Your task to perform on an android device: Search for usb-a to usb-b on costco, select the first entry, and add it to the cart. Image 0: 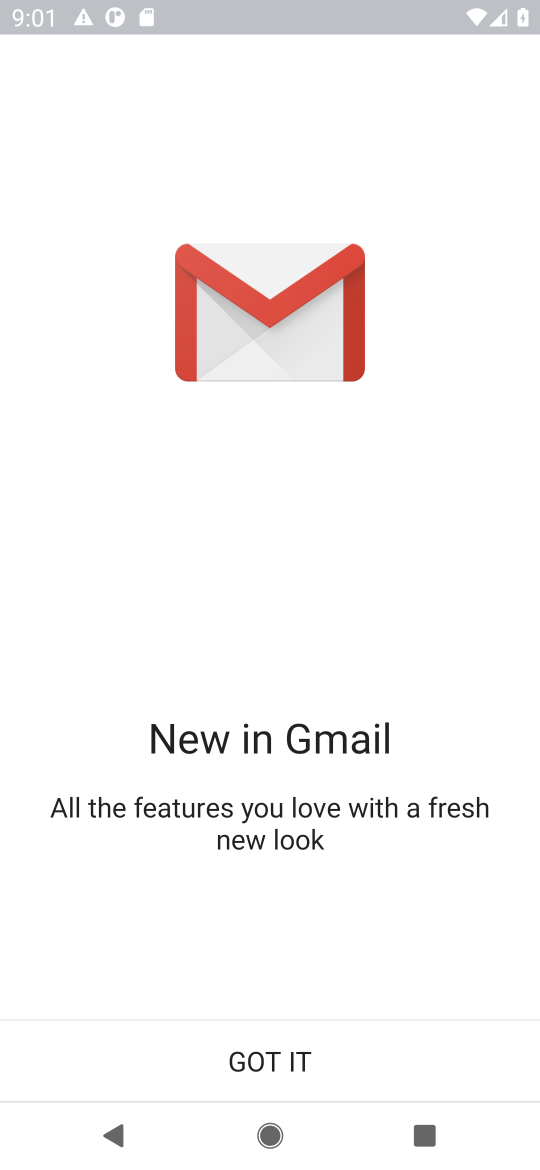
Step 0: press home button
Your task to perform on an android device: Search for usb-a to usb-b on costco, select the first entry, and add it to the cart. Image 1: 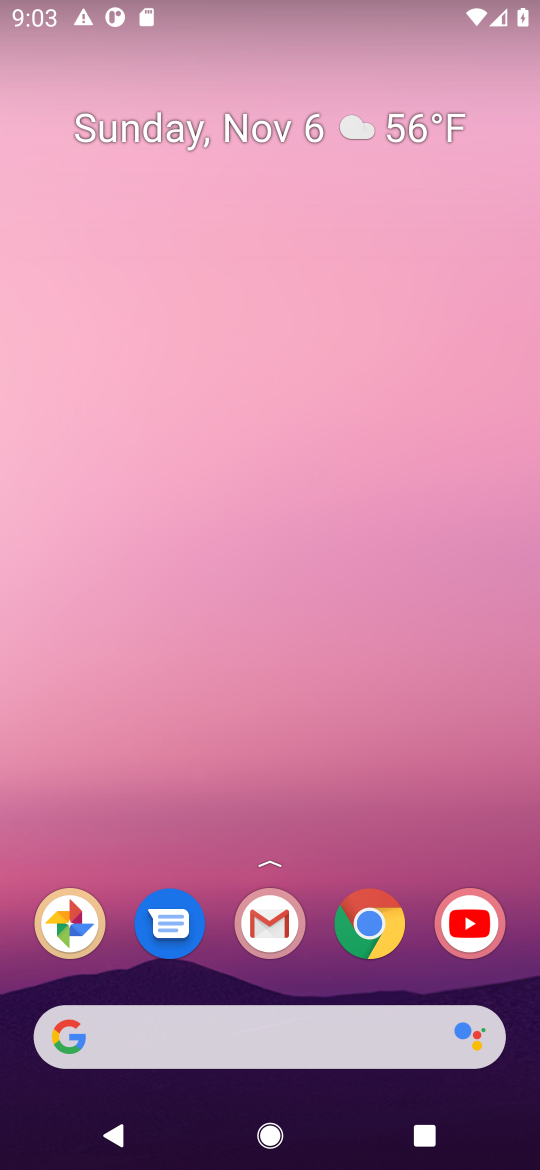
Step 1: click (368, 928)
Your task to perform on an android device: Search for usb-a to usb-b on costco, select the first entry, and add it to the cart. Image 2: 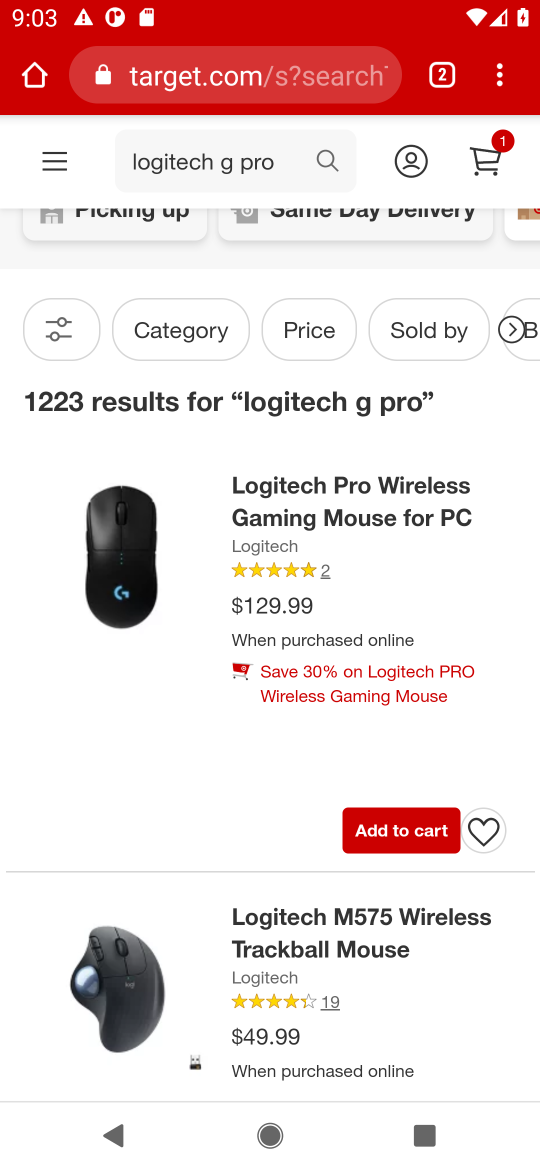
Step 2: click (190, 77)
Your task to perform on an android device: Search for usb-a to usb-b on costco, select the first entry, and add it to the cart. Image 3: 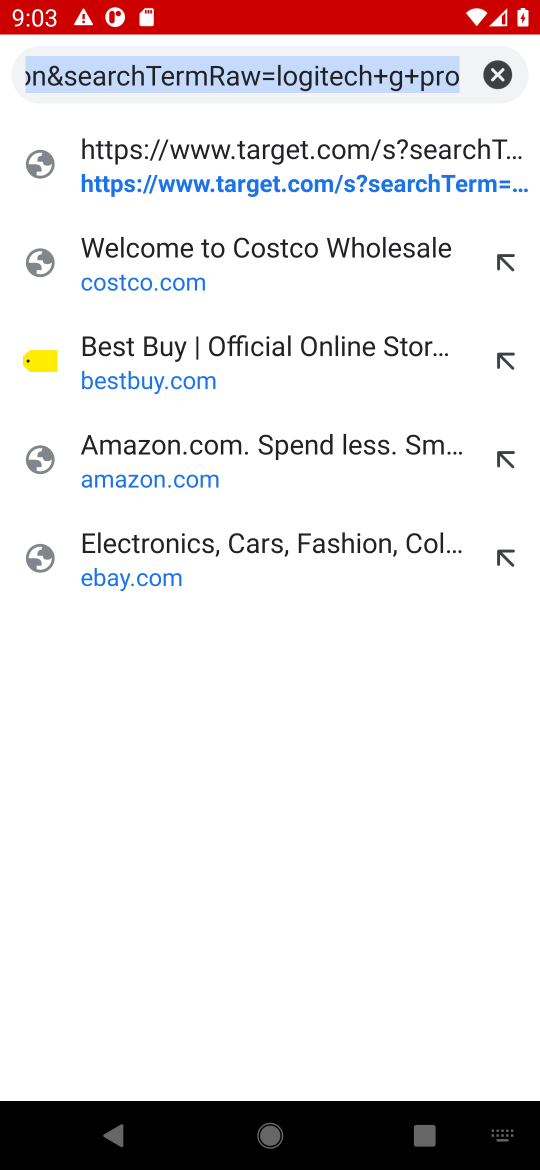
Step 3: type "costco.com"
Your task to perform on an android device: Search for usb-a to usb-b on costco, select the first entry, and add it to the cart. Image 4: 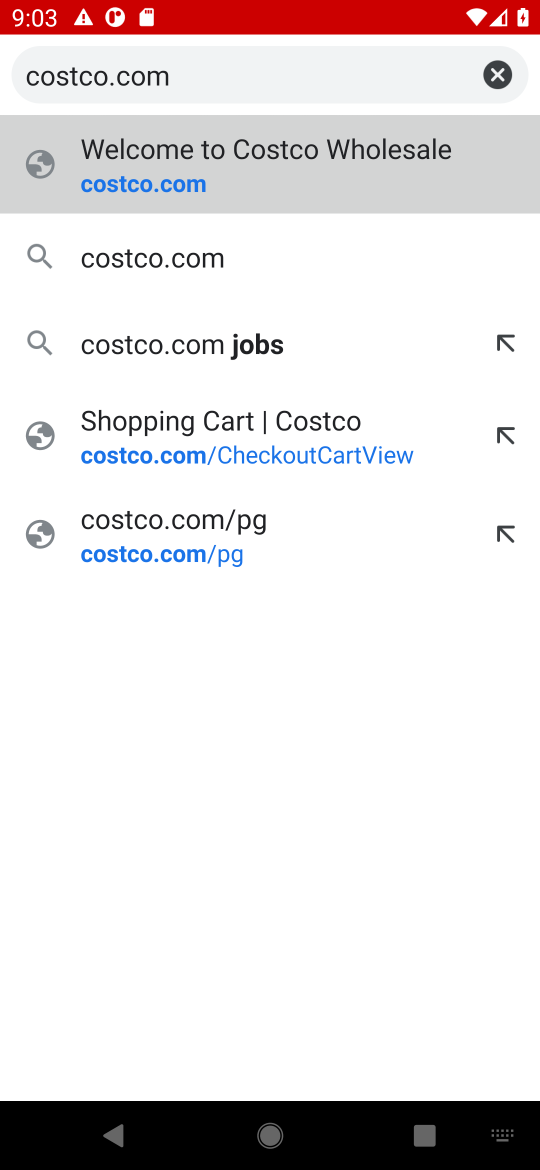
Step 4: click (92, 181)
Your task to perform on an android device: Search for usb-a to usb-b on costco, select the first entry, and add it to the cart. Image 5: 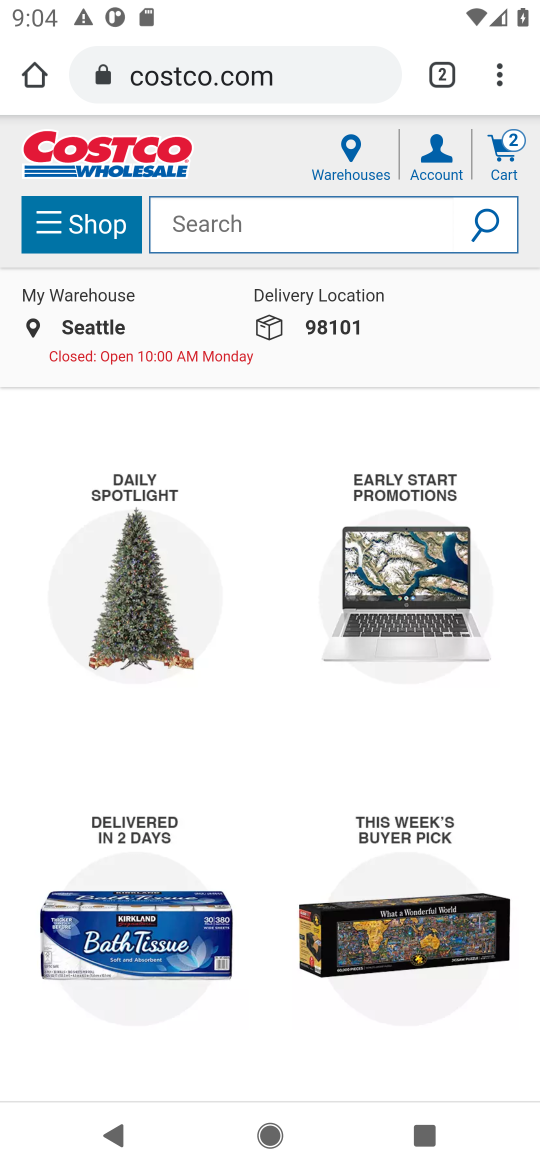
Step 5: click (258, 242)
Your task to perform on an android device: Search for usb-a to usb-b on costco, select the first entry, and add it to the cart. Image 6: 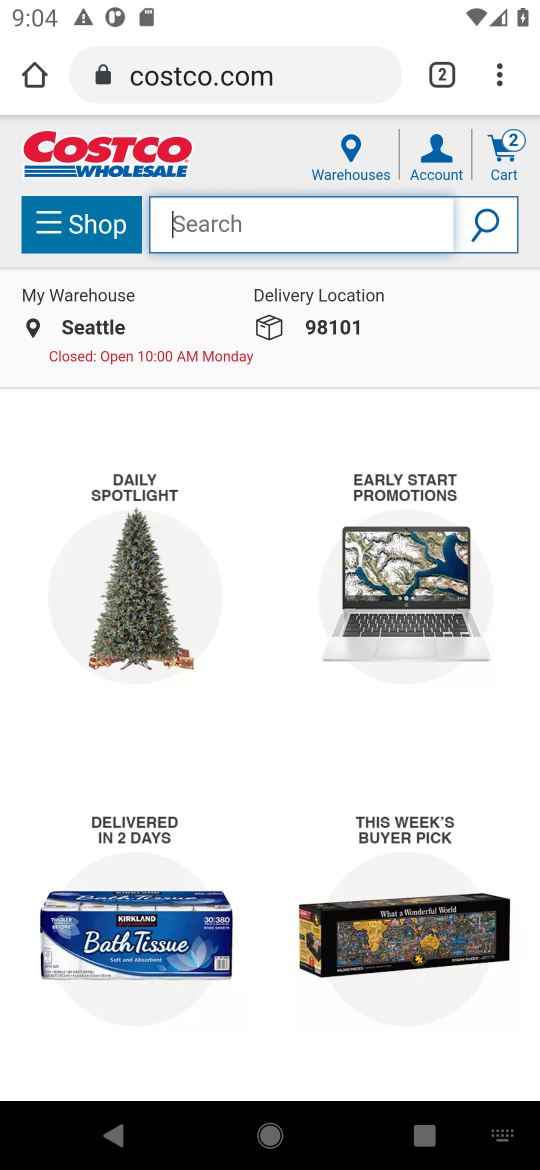
Step 6: type " usb-a to usb-b"
Your task to perform on an android device: Search for usb-a to usb-b on costco, select the first entry, and add it to the cart. Image 7: 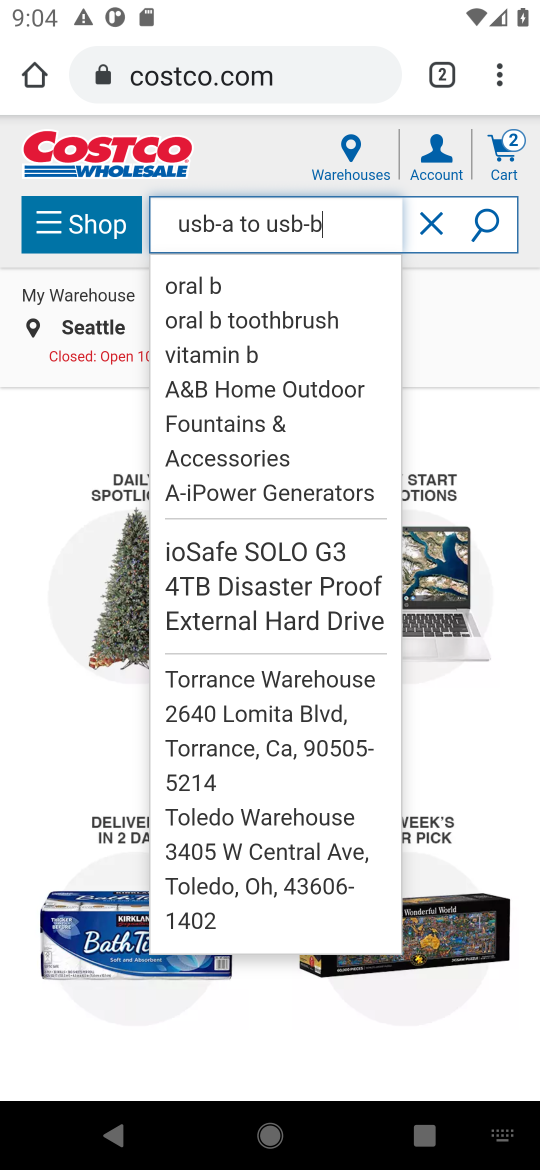
Step 7: click (478, 229)
Your task to perform on an android device: Search for usb-a to usb-b on costco, select the first entry, and add it to the cart. Image 8: 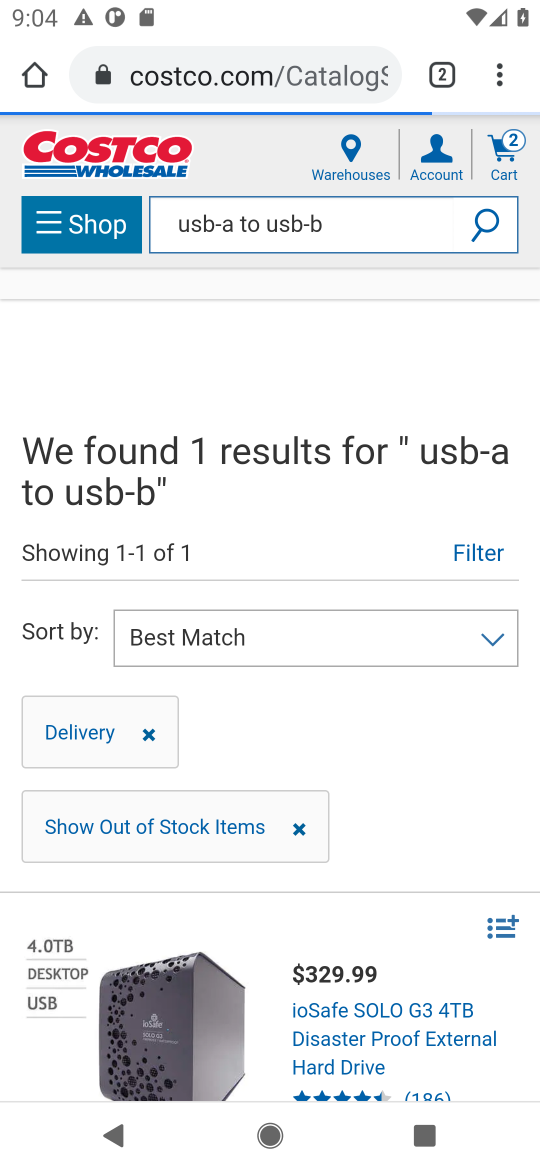
Step 8: task complete